Your task to perform on an android device: Open the calendar app, open the side menu, and click the "Day" option Image 0: 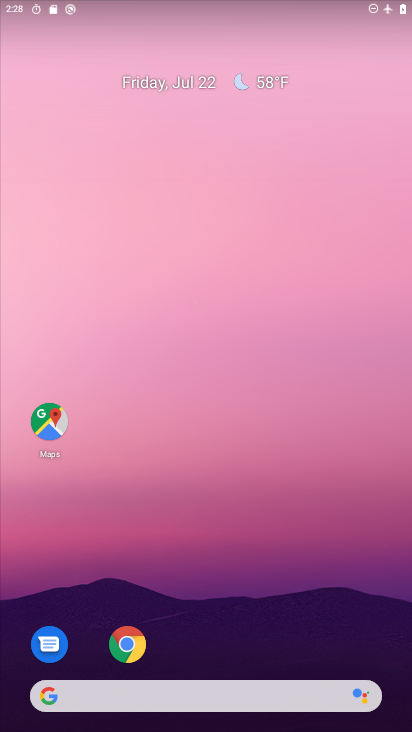
Step 0: drag from (245, 573) to (251, 147)
Your task to perform on an android device: Open the calendar app, open the side menu, and click the "Day" option Image 1: 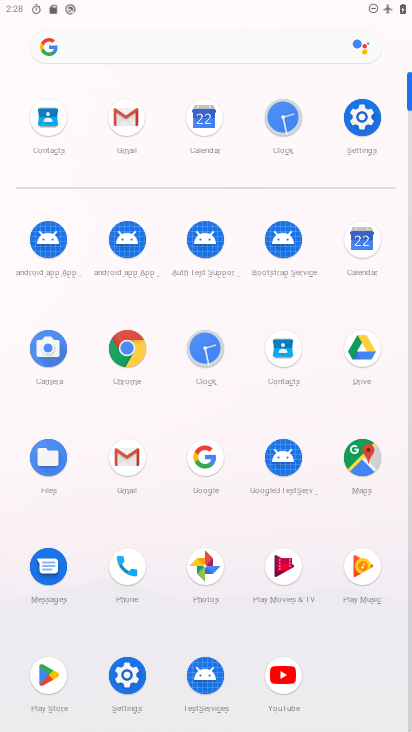
Step 1: click (358, 256)
Your task to perform on an android device: Open the calendar app, open the side menu, and click the "Day" option Image 2: 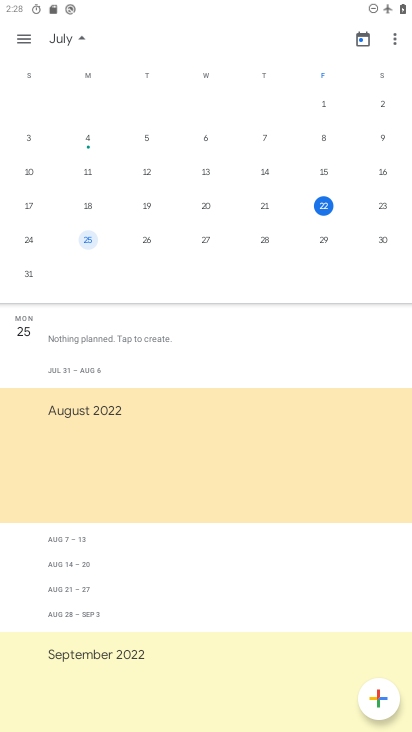
Step 2: click (27, 46)
Your task to perform on an android device: Open the calendar app, open the side menu, and click the "Day" option Image 3: 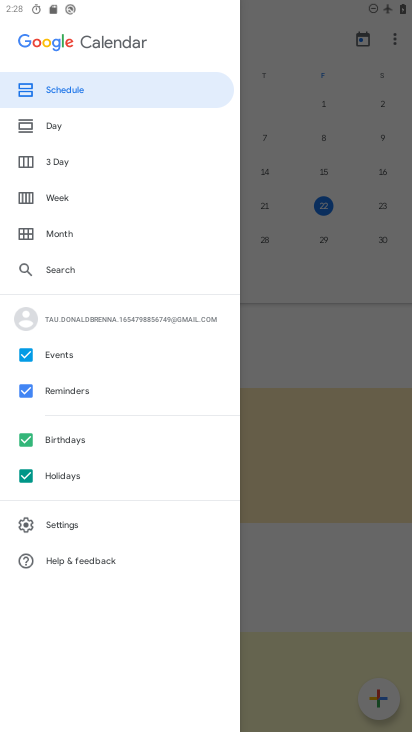
Step 3: click (72, 119)
Your task to perform on an android device: Open the calendar app, open the side menu, and click the "Day" option Image 4: 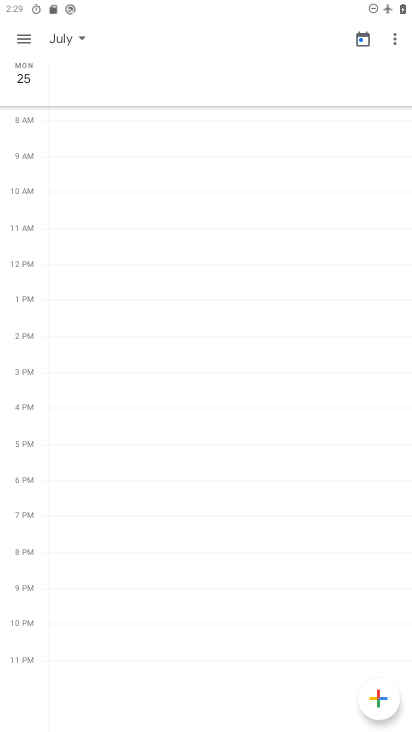
Step 4: click (25, 36)
Your task to perform on an android device: Open the calendar app, open the side menu, and click the "Day" option Image 5: 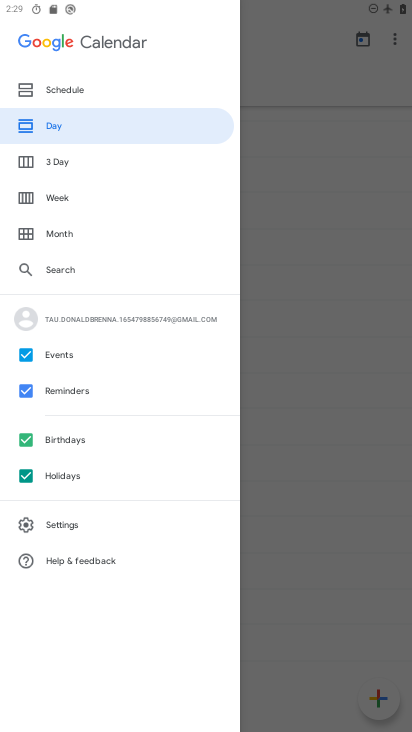
Step 5: task complete